Your task to perform on an android device: turn on javascript in the chrome app Image 0: 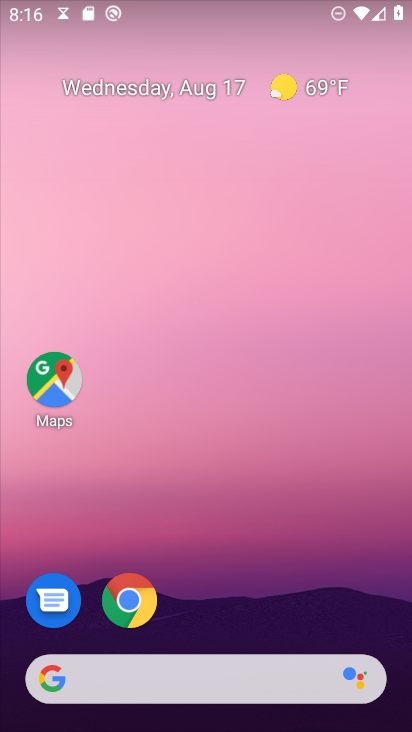
Step 0: press home button
Your task to perform on an android device: turn on javascript in the chrome app Image 1: 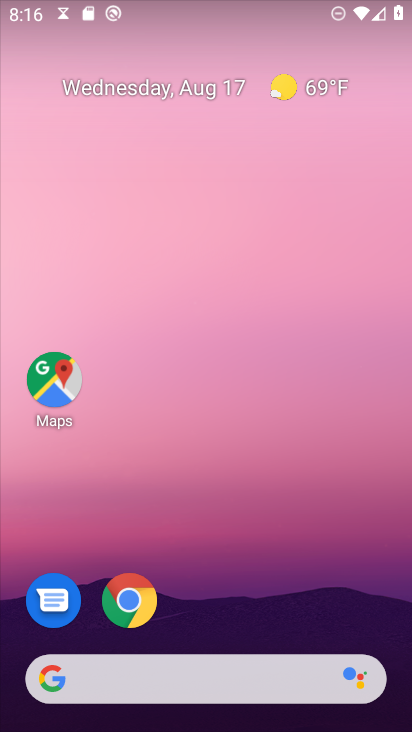
Step 1: click (142, 610)
Your task to perform on an android device: turn on javascript in the chrome app Image 2: 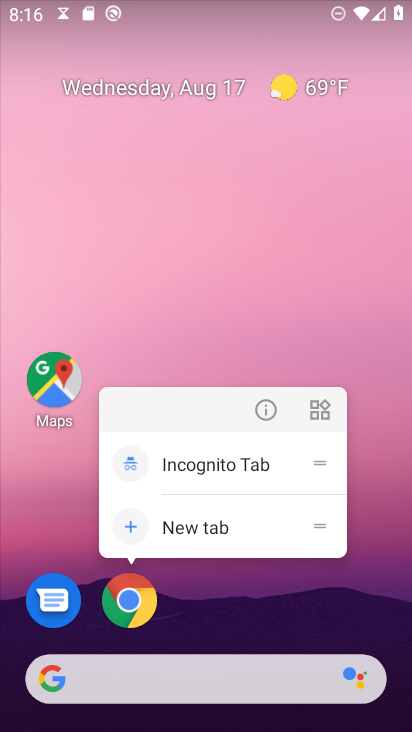
Step 2: click (124, 607)
Your task to perform on an android device: turn on javascript in the chrome app Image 3: 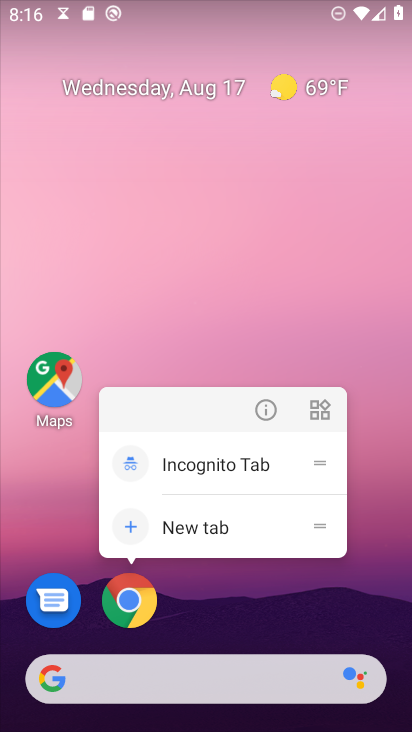
Step 3: click (130, 616)
Your task to perform on an android device: turn on javascript in the chrome app Image 4: 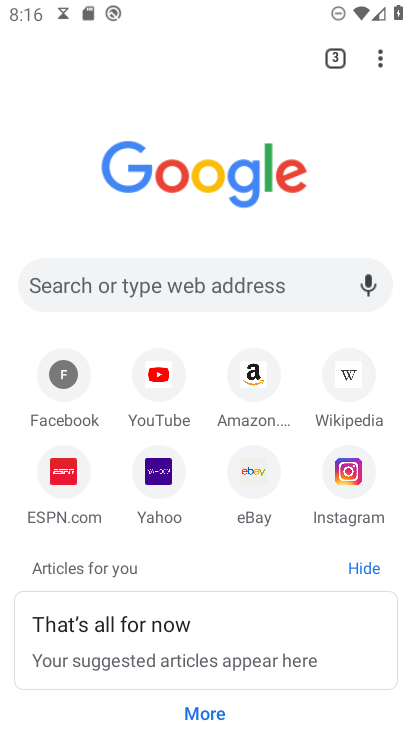
Step 4: drag from (382, 67) to (188, 491)
Your task to perform on an android device: turn on javascript in the chrome app Image 5: 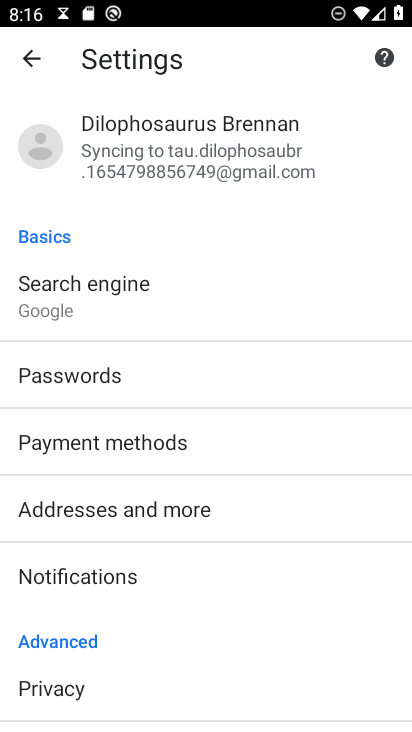
Step 5: drag from (123, 648) to (113, 296)
Your task to perform on an android device: turn on javascript in the chrome app Image 6: 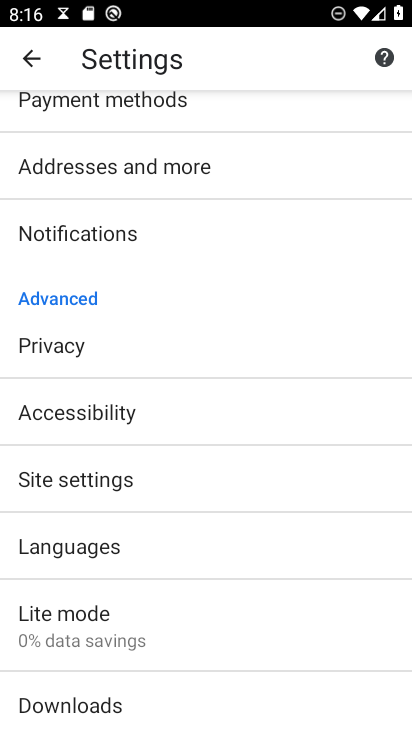
Step 6: click (77, 469)
Your task to perform on an android device: turn on javascript in the chrome app Image 7: 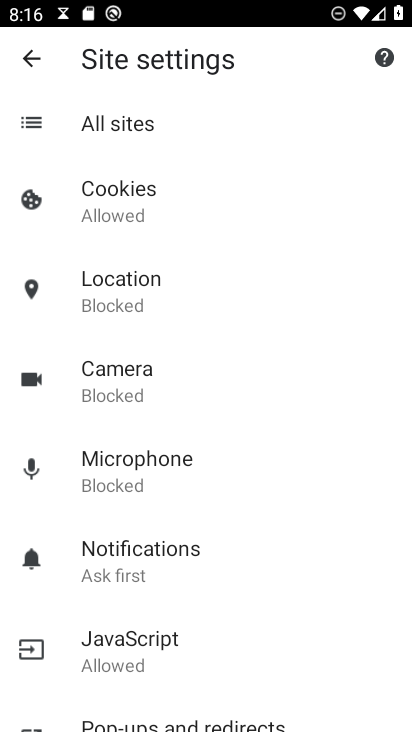
Step 7: click (157, 641)
Your task to perform on an android device: turn on javascript in the chrome app Image 8: 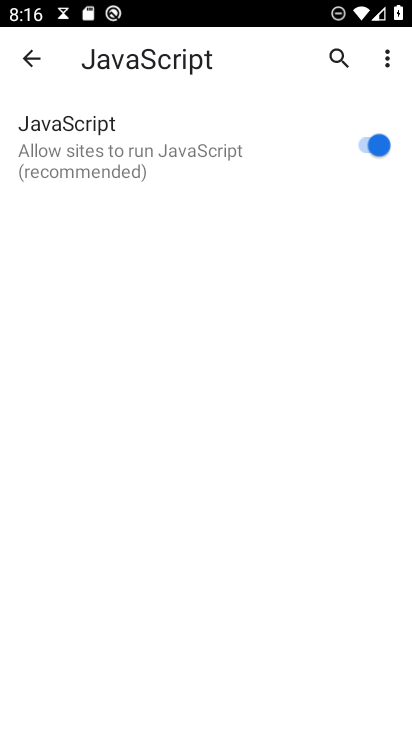
Step 8: task complete